Your task to perform on an android device: Check the weather Image 0: 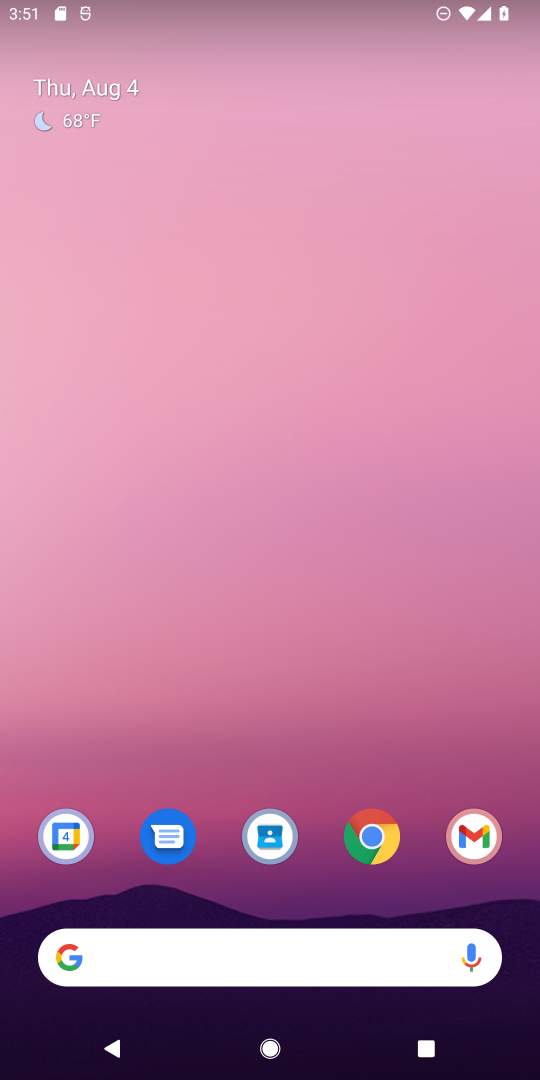
Step 0: click (361, 951)
Your task to perform on an android device: Check the weather Image 1: 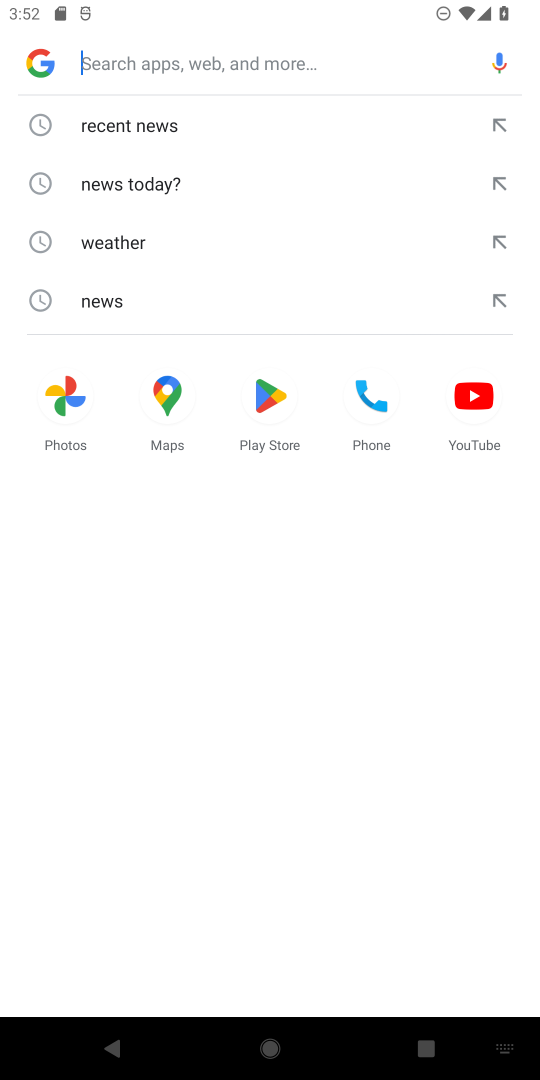
Step 1: click (169, 246)
Your task to perform on an android device: Check the weather Image 2: 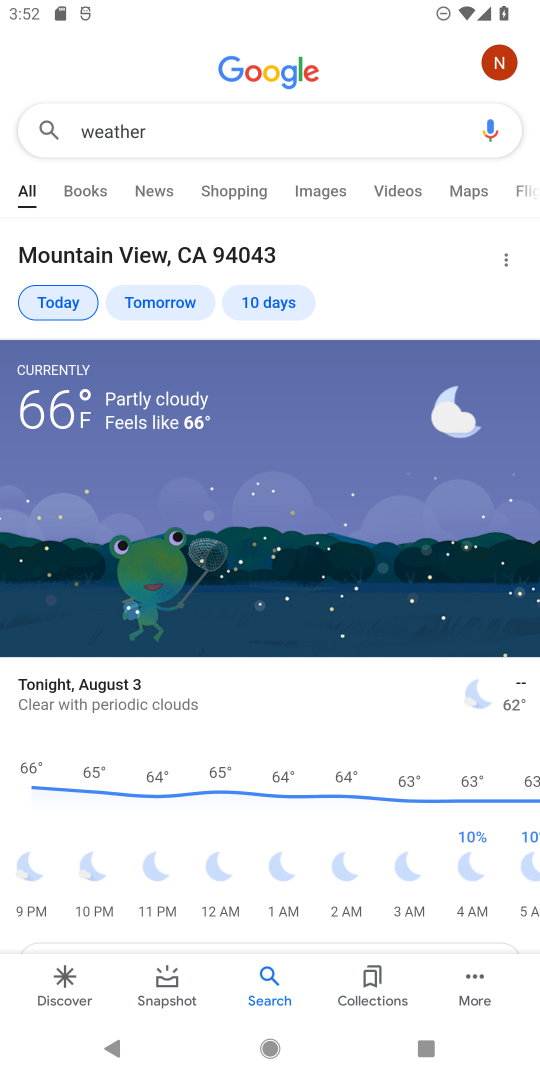
Step 2: task complete